Your task to perform on an android device: change the clock style Image 0: 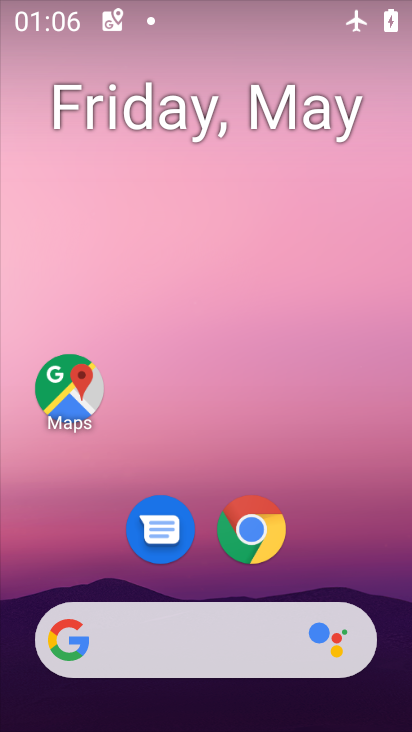
Step 0: drag from (317, 344) to (308, 249)
Your task to perform on an android device: change the clock style Image 1: 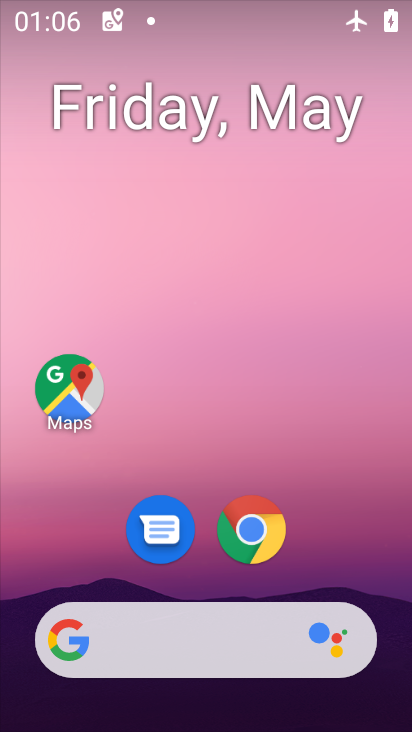
Step 1: drag from (322, 572) to (341, 261)
Your task to perform on an android device: change the clock style Image 2: 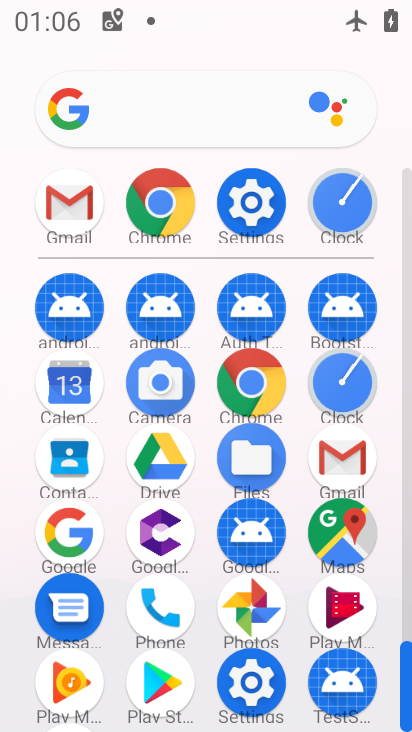
Step 2: click (339, 385)
Your task to perform on an android device: change the clock style Image 3: 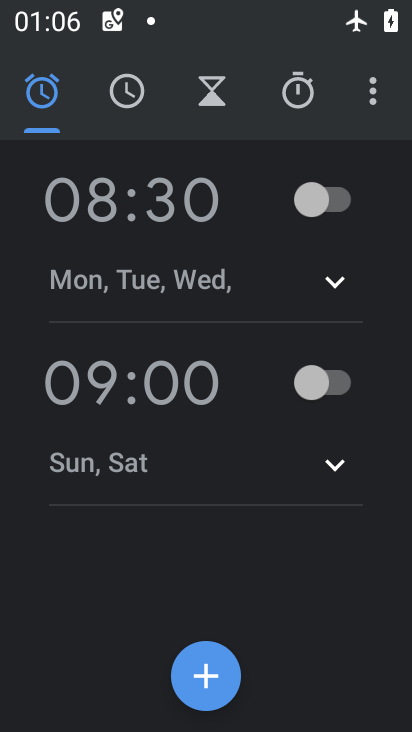
Step 3: click (365, 85)
Your task to perform on an android device: change the clock style Image 4: 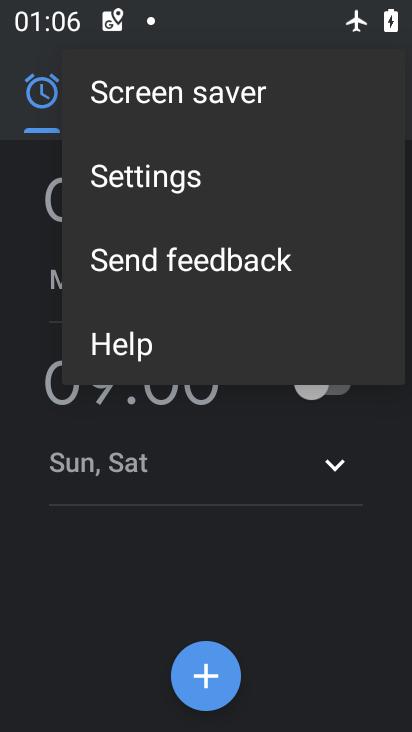
Step 4: click (174, 177)
Your task to perform on an android device: change the clock style Image 5: 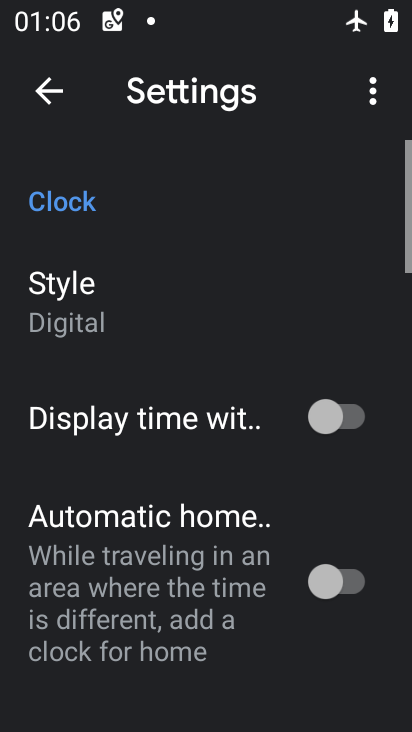
Step 5: click (68, 291)
Your task to perform on an android device: change the clock style Image 6: 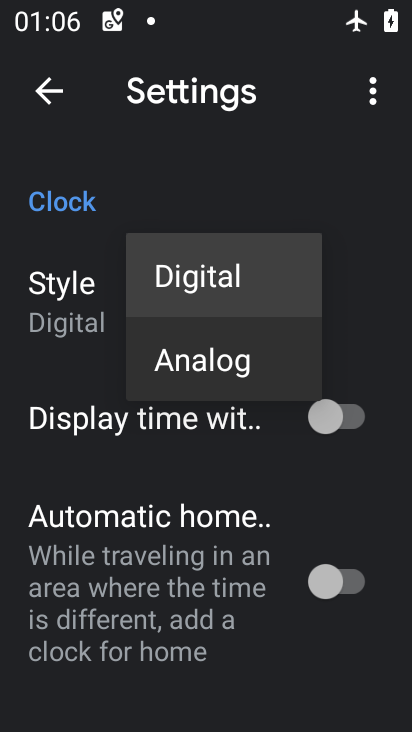
Step 6: click (207, 364)
Your task to perform on an android device: change the clock style Image 7: 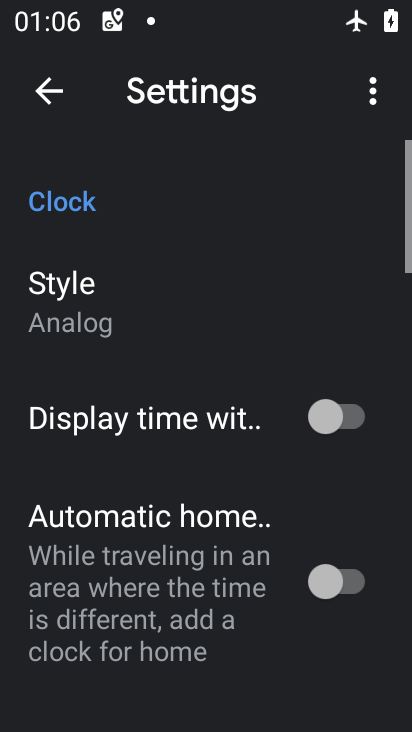
Step 7: task complete